Your task to perform on an android device: change the clock display to digital Image 0: 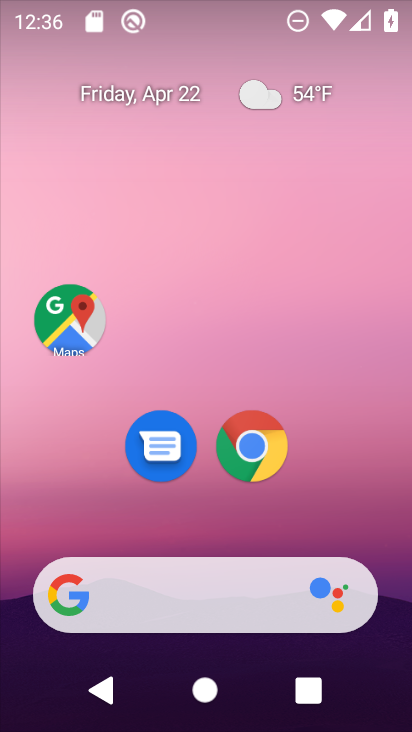
Step 0: drag from (391, 595) to (321, 167)
Your task to perform on an android device: change the clock display to digital Image 1: 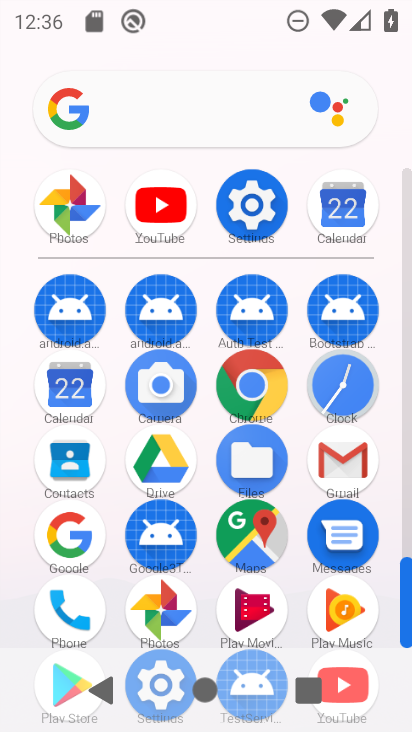
Step 1: click (348, 406)
Your task to perform on an android device: change the clock display to digital Image 2: 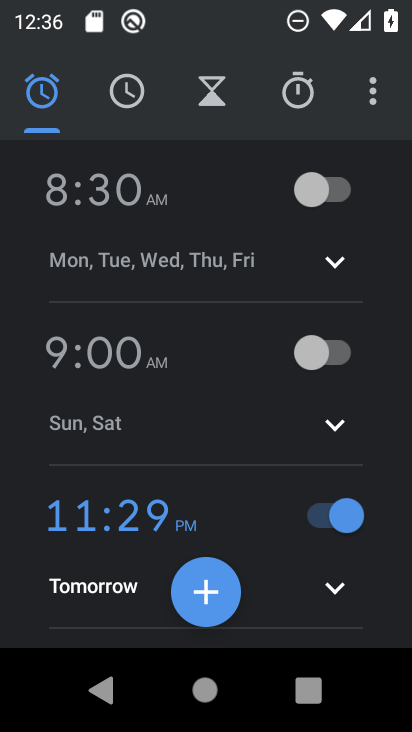
Step 2: click (384, 117)
Your task to perform on an android device: change the clock display to digital Image 3: 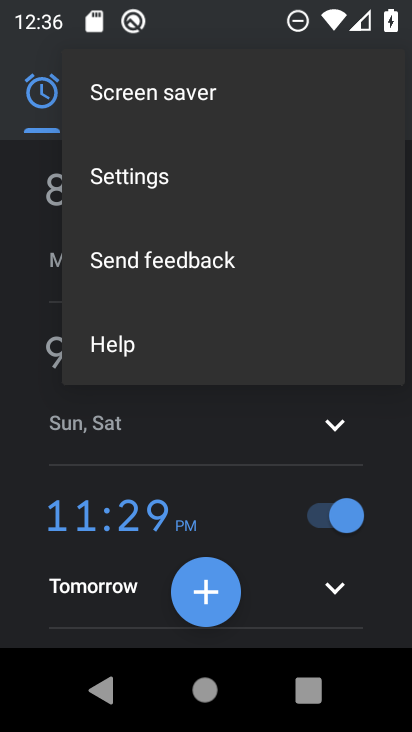
Step 3: click (255, 159)
Your task to perform on an android device: change the clock display to digital Image 4: 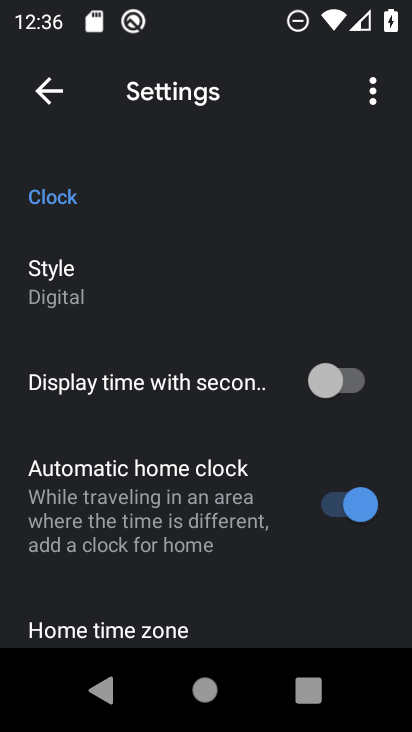
Step 4: task complete